Your task to perform on an android device: Open my contact list Image 0: 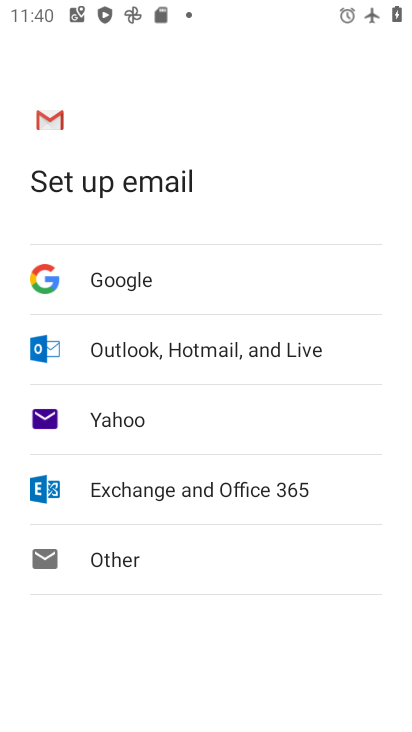
Step 0: press home button
Your task to perform on an android device: Open my contact list Image 1: 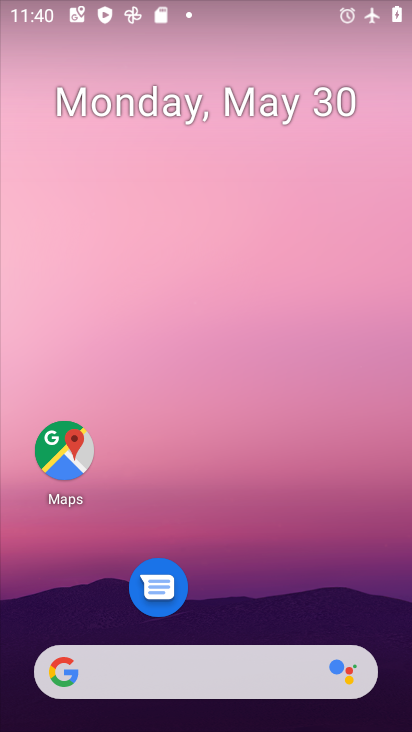
Step 1: drag from (178, 642) to (253, 8)
Your task to perform on an android device: Open my contact list Image 2: 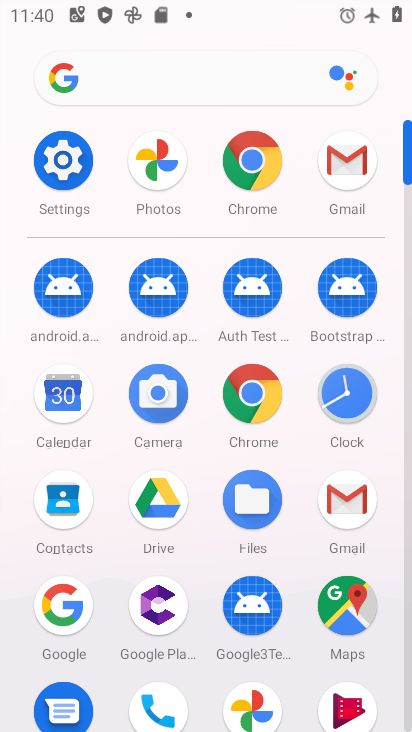
Step 2: click (164, 686)
Your task to perform on an android device: Open my contact list Image 3: 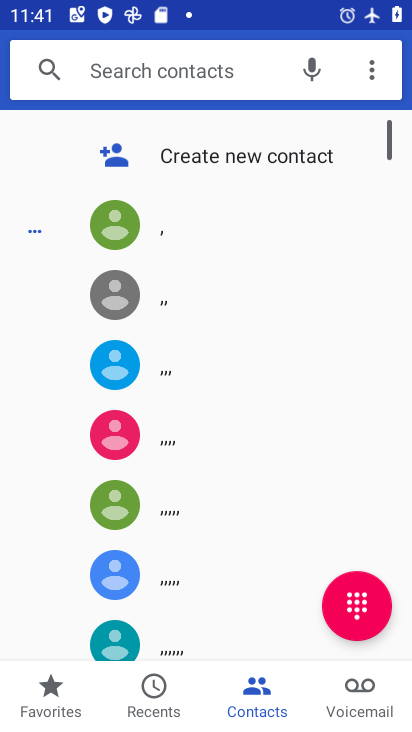
Step 3: task complete